Your task to perform on an android device: Open calendar and show me the fourth week of next month Image 0: 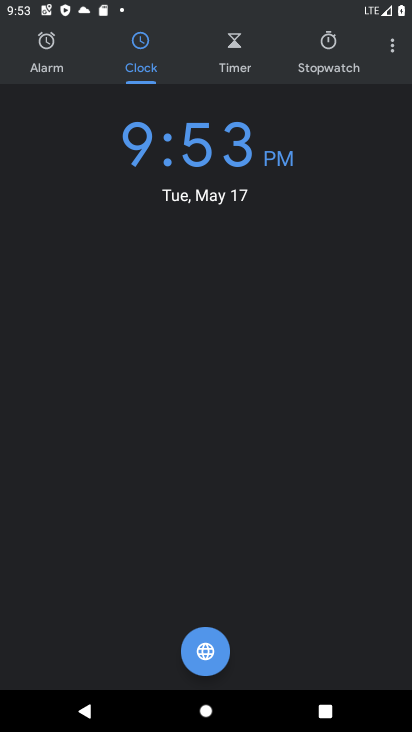
Step 0: press home button
Your task to perform on an android device: Open calendar and show me the fourth week of next month Image 1: 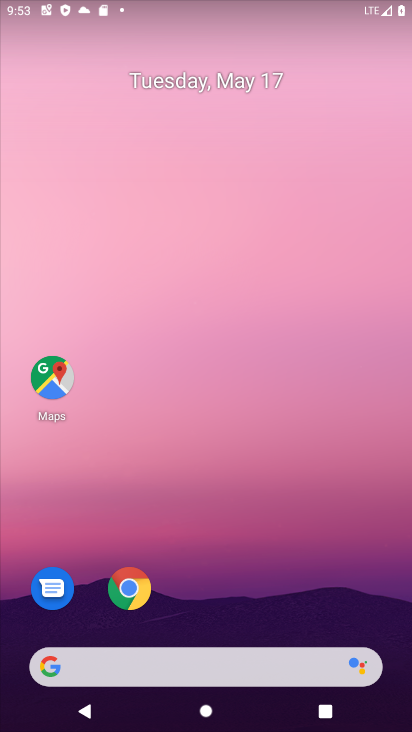
Step 1: drag from (210, 624) to (188, 14)
Your task to perform on an android device: Open calendar and show me the fourth week of next month Image 2: 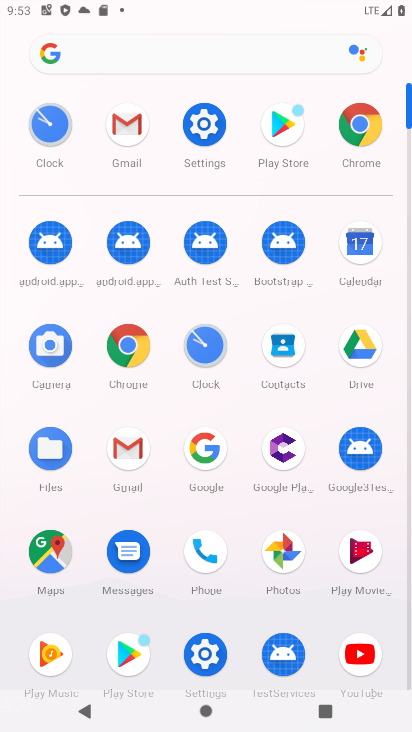
Step 2: click (365, 259)
Your task to perform on an android device: Open calendar and show me the fourth week of next month Image 3: 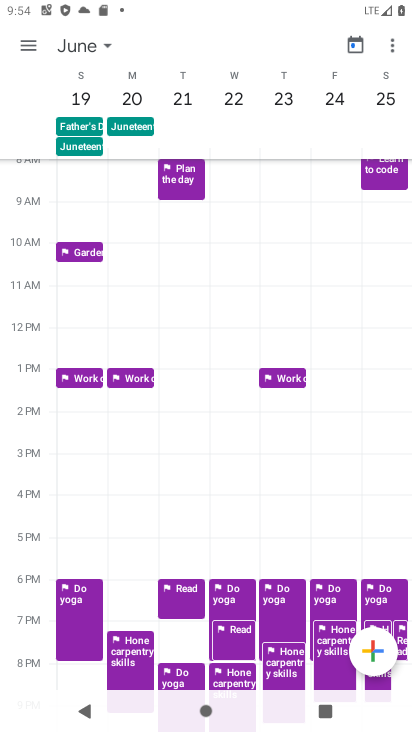
Step 3: task complete